Your task to perform on an android device: What's the weather today? Image 0: 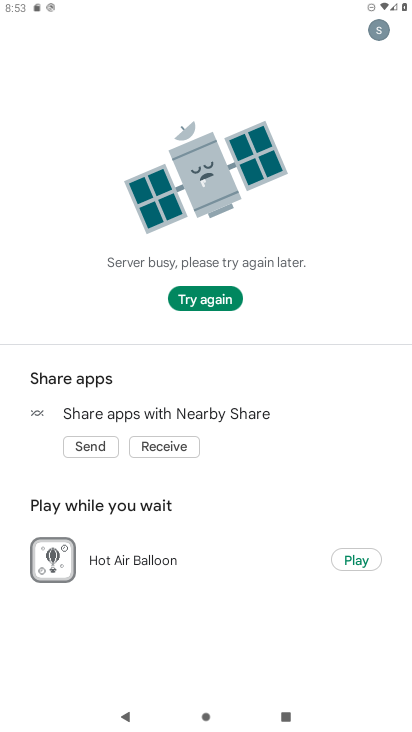
Step 0: press home button
Your task to perform on an android device: What's the weather today? Image 1: 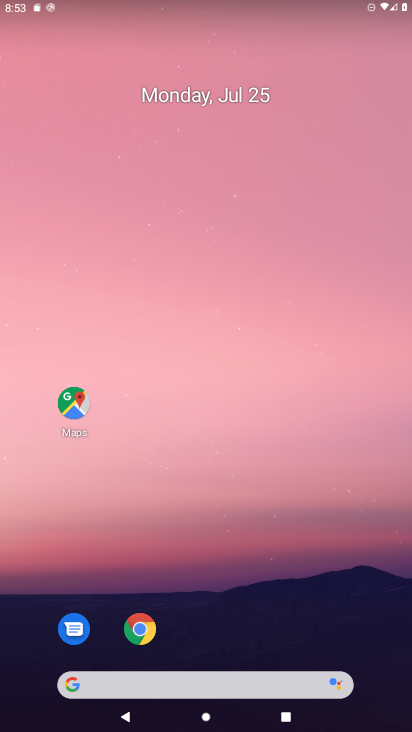
Step 1: click (122, 688)
Your task to perform on an android device: What's the weather today? Image 2: 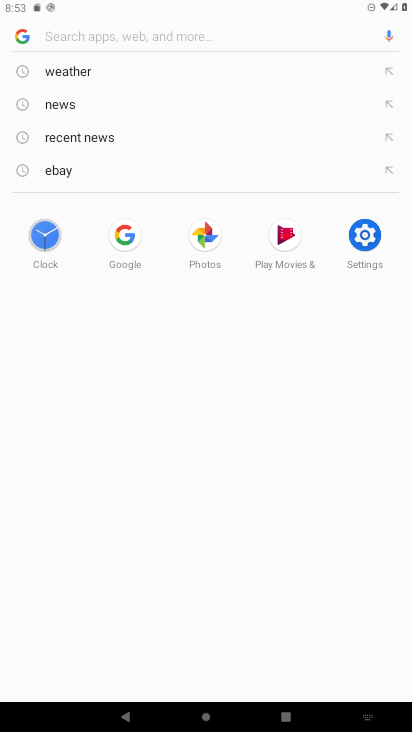
Step 2: click (77, 73)
Your task to perform on an android device: What's the weather today? Image 3: 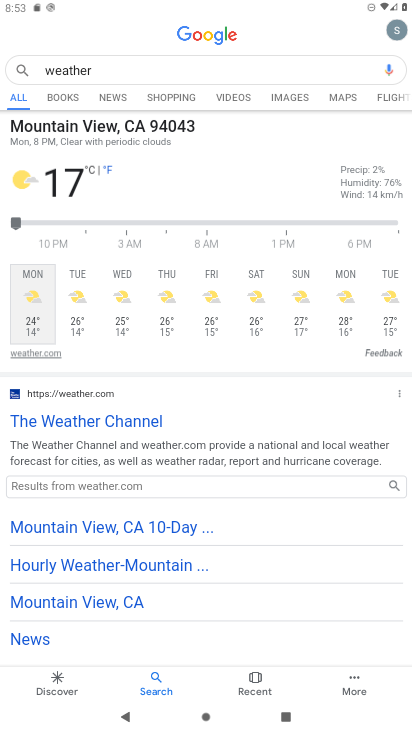
Step 3: task complete